Your task to perform on an android device: Open calendar and show me the third week of next month Image 0: 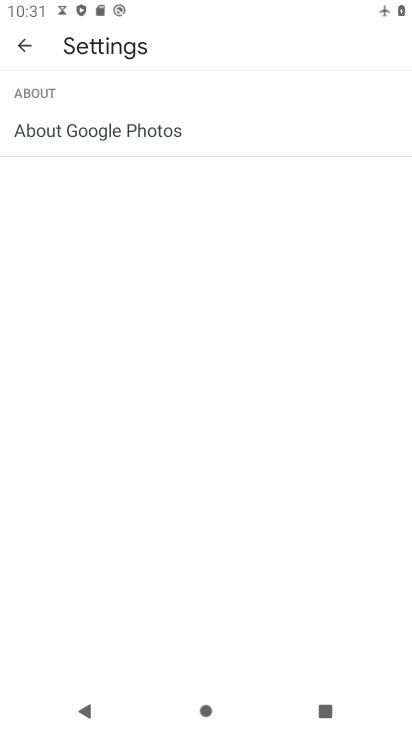
Step 0: press back button
Your task to perform on an android device: Open calendar and show me the third week of next month Image 1: 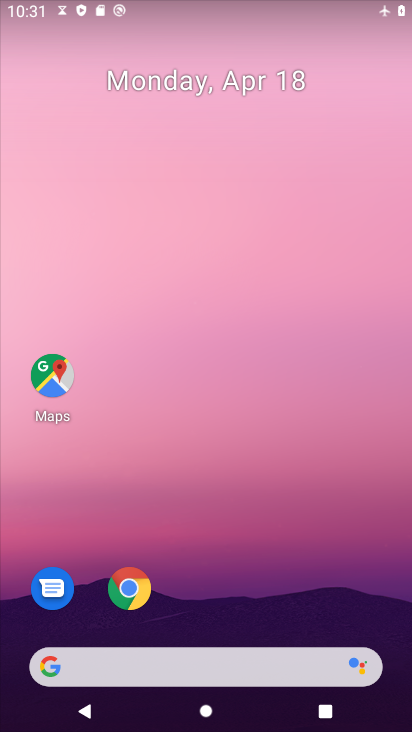
Step 1: drag from (207, 576) to (156, 32)
Your task to perform on an android device: Open calendar and show me the third week of next month Image 2: 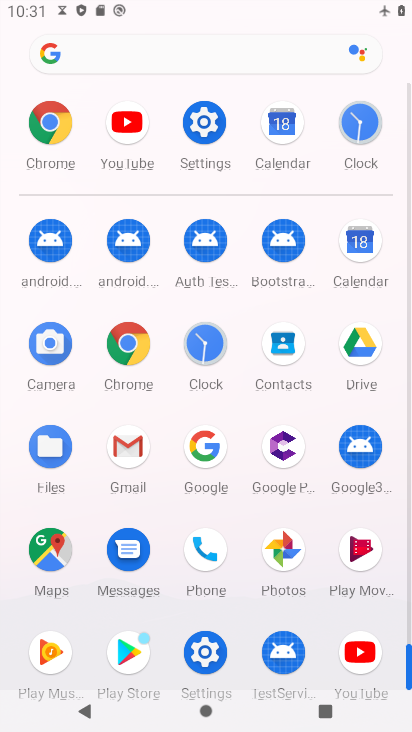
Step 2: drag from (14, 554) to (1, 232)
Your task to perform on an android device: Open calendar and show me the third week of next month Image 3: 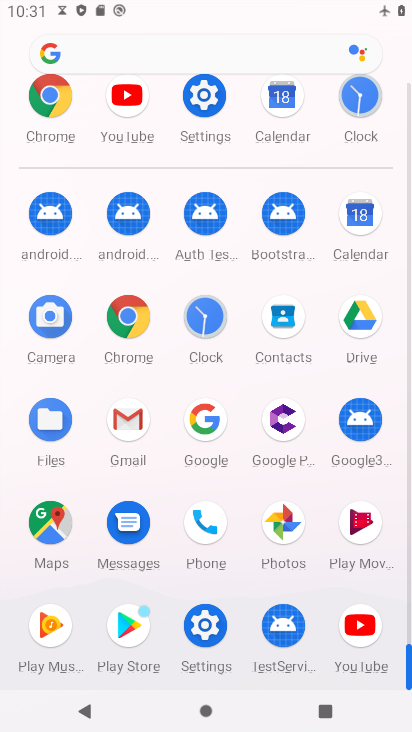
Step 3: drag from (8, 576) to (1, 341)
Your task to perform on an android device: Open calendar and show me the third week of next month Image 4: 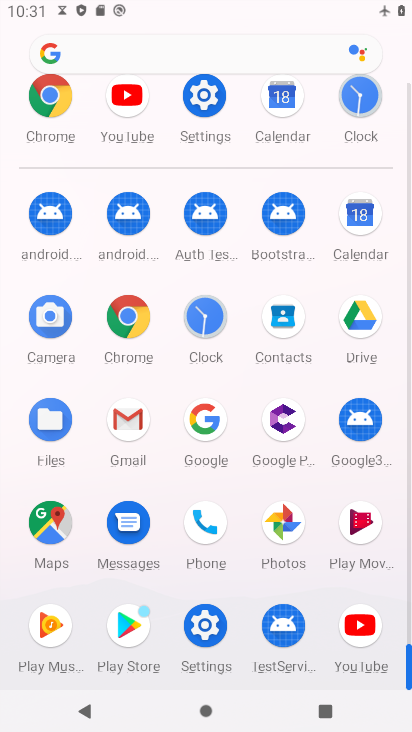
Step 4: drag from (14, 195) to (30, 409)
Your task to perform on an android device: Open calendar and show me the third week of next month Image 5: 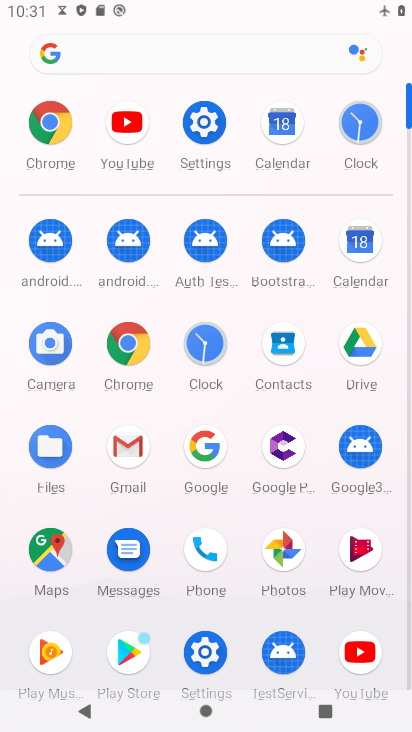
Step 5: click (356, 226)
Your task to perform on an android device: Open calendar and show me the third week of next month Image 6: 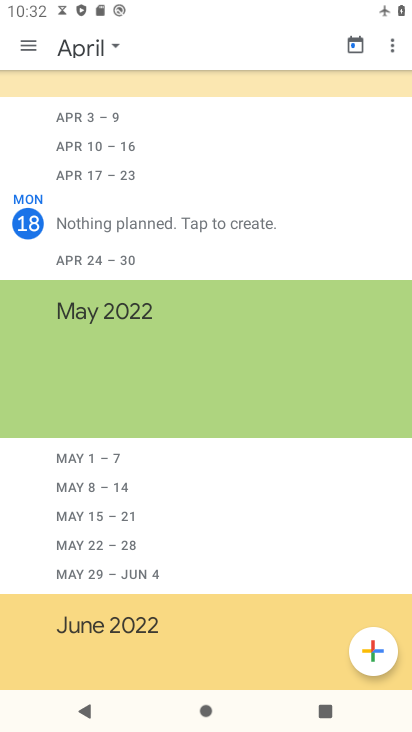
Step 6: click (12, 43)
Your task to perform on an android device: Open calendar and show me the third week of next month Image 7: 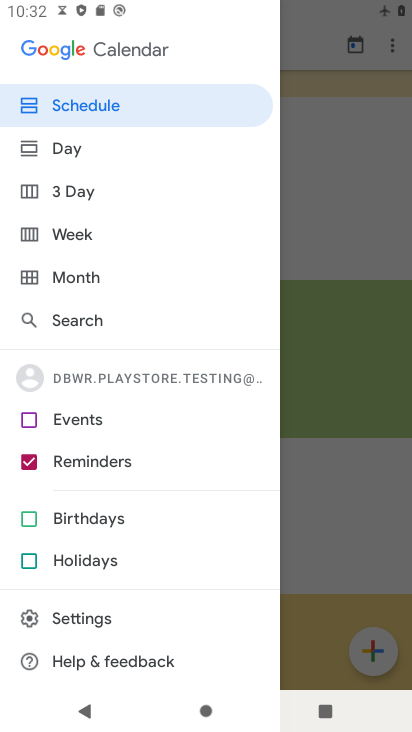
Step 7: click (56, 273)
Your task to perform on an android device: Open calendar and show me the third week of next month Image 8: 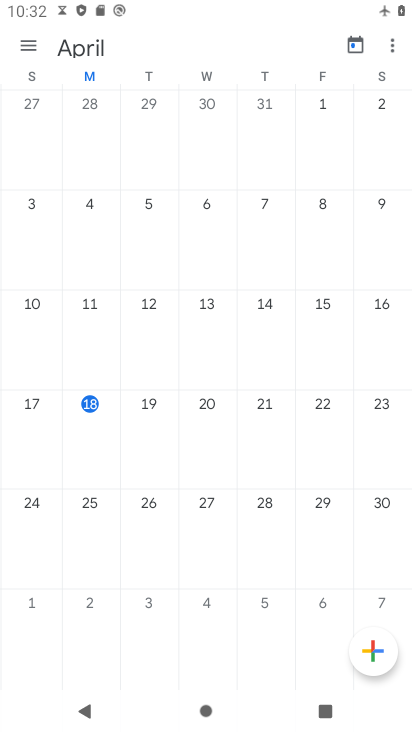
Step 8: drag from (378, 331) to (2, 374)
Your task to perform on an android device: Open calendar and show me the third week of next month Image 9: 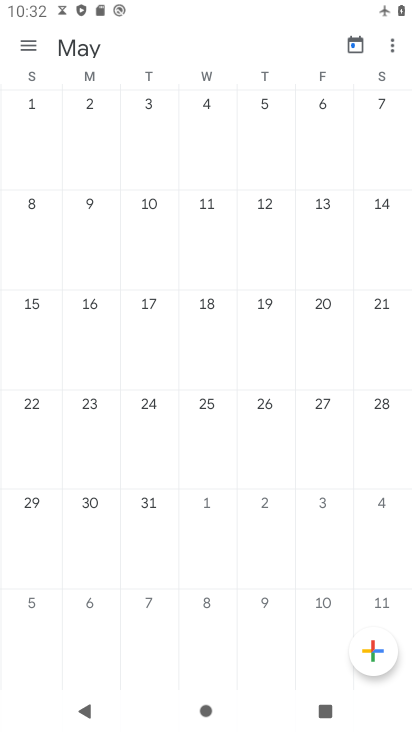
Step 9: click (88, 312)
Your task to perform on an android device: Open calendar and show me the third week of next month Image 10: 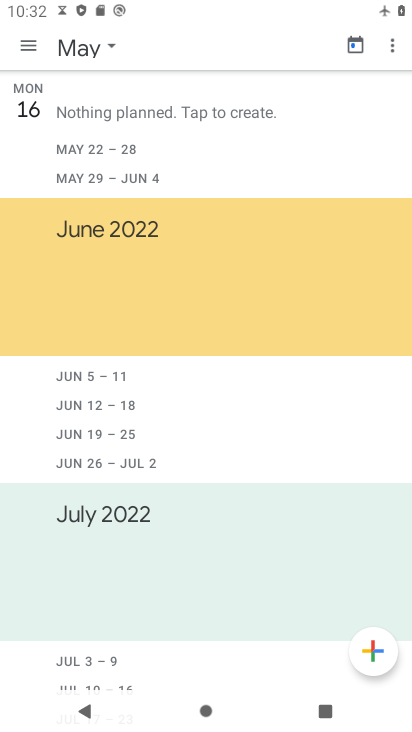
Step 10: click (33, 47)
Your task to perform on an android device: Open calendar and show me the third week of next month Image 11: 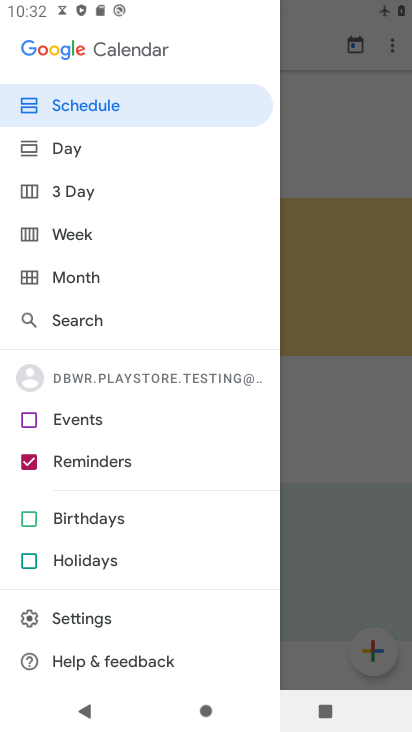
Step 11: click (89, 237)
Your task to perform on an android device: Open calendar and show me the third week of next month Image 12: 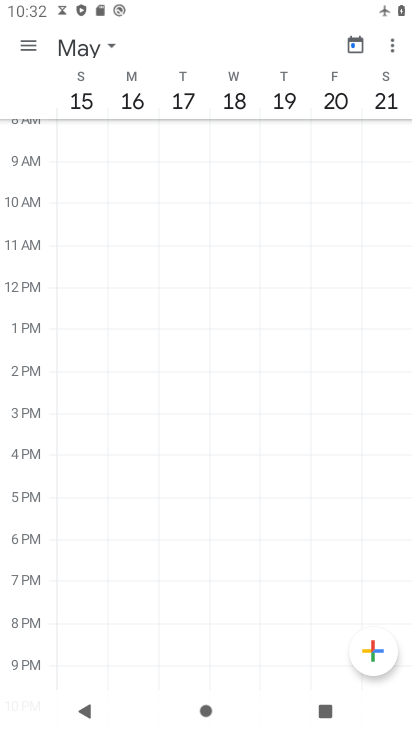
Step 12: task complete